Your task to perform on an android device: Turn off the flashlight Image 0: 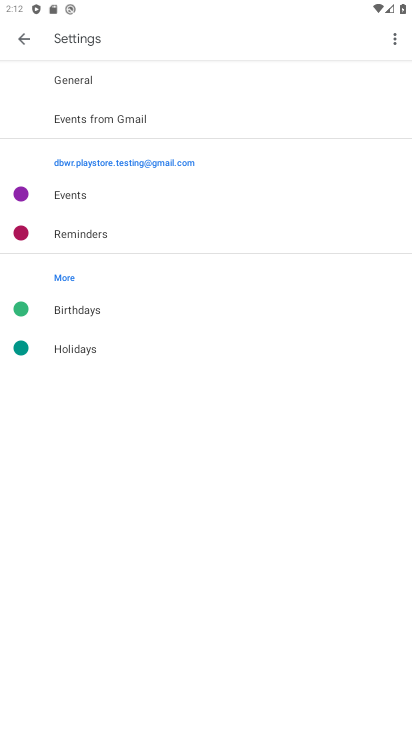
Step 0: press home button
Your task to perform on an android device: Turn off the flashlight Image 1: 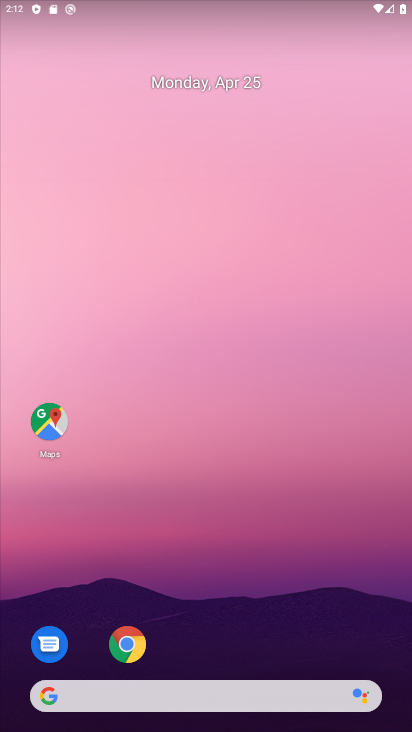
Step 1: drag from (325, 7) to (337, 486)
Your task to perform on an android device: Turn off the flashlight Image 2: 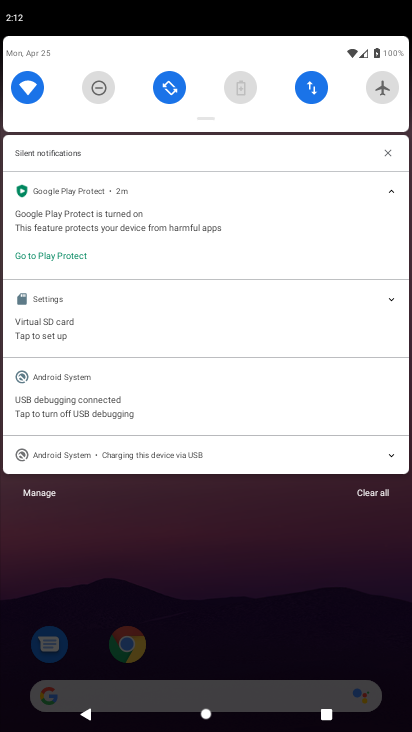
Step 2: drag from (204, 96) to (225, 456)
Your task to perform on an android device: Turn off the flashlight Image 3: 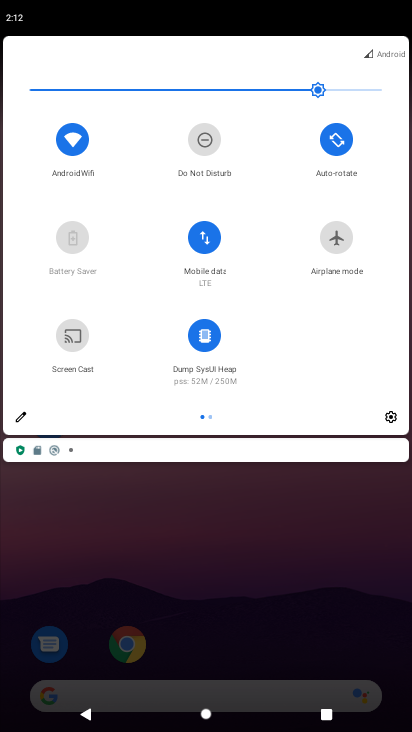
Step 3: drag from (355, 299) to (89, 300)
Your task to perform on an android device: Turn off the flashlight Image 4: 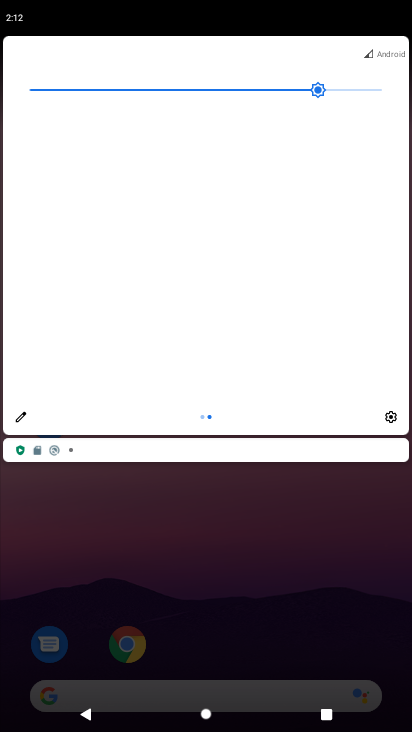
Step 4: click (23, 415)
Your task to perform on an android device: Turn off the flashlight Image 5: 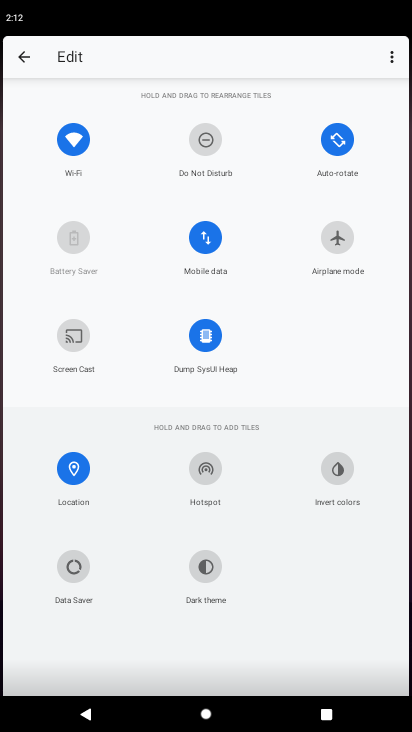
Step 5: task complete